Your task to perform on an android device: change notification settings in the gmail app Image 0: 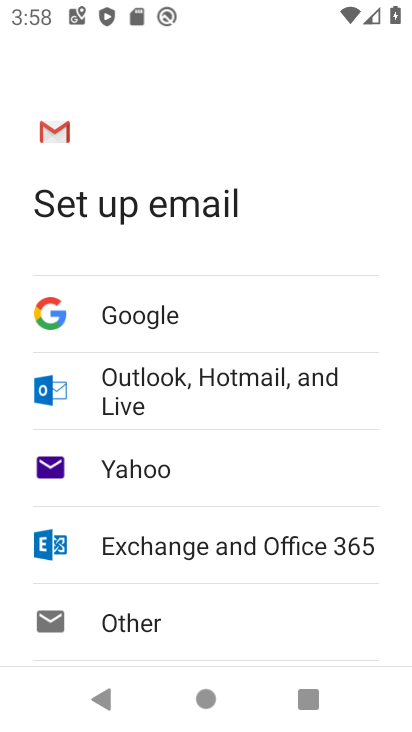
Step 0: press home button
Your task to perform on an android device: change notification settings in the gmail app Image 1: 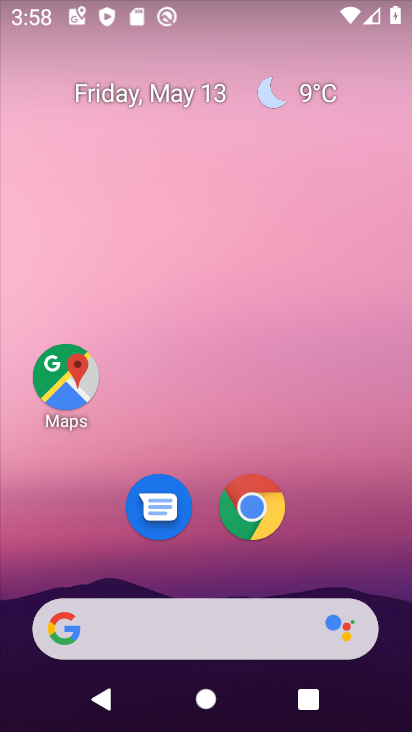
Step 1: drag from (337, 537) to (387, 73)
Your task to perform on an android device: change notification settings in the gmail app Image 2: 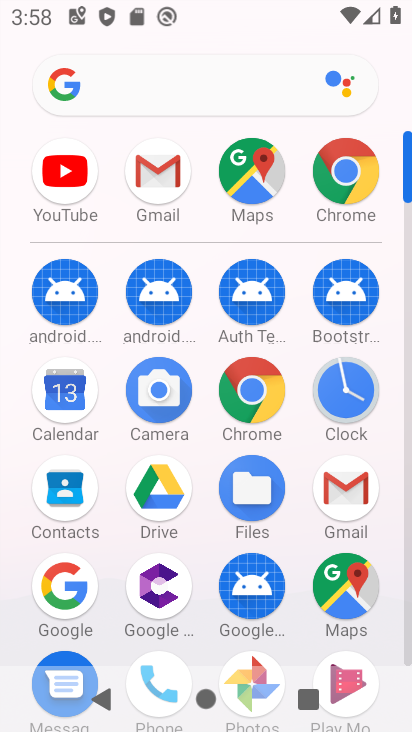
Step 2: click (160, 179)
Your task to perform on an android device: change notification settings in the gmail app Image 3: 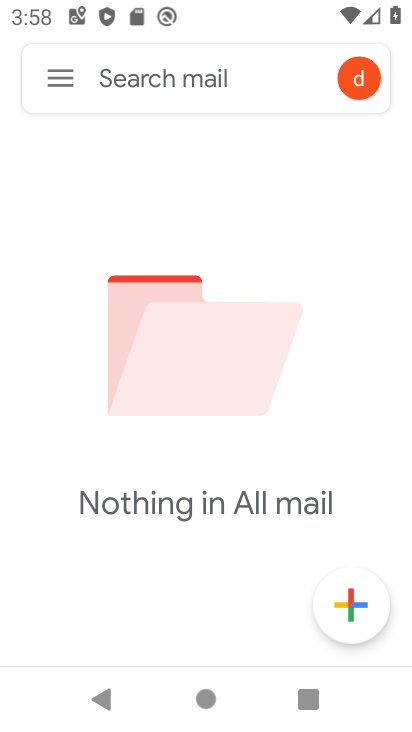
Step 3: click (56, 87)
Your task to perform on an android device: change notification settings in the gmail app Image 4: 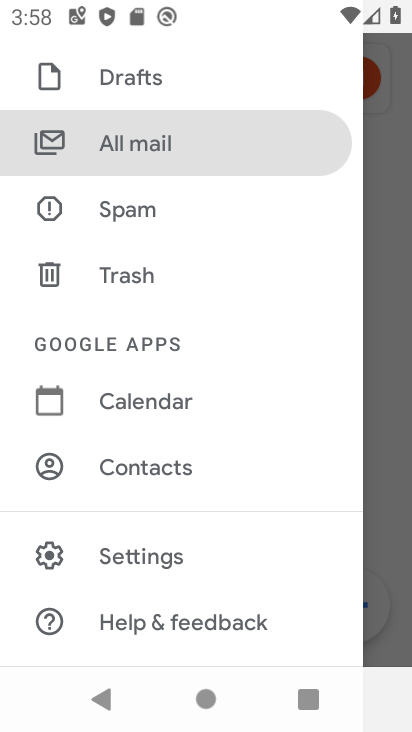
Step 4: click (179, 564)
Your task to perform on an android device: change notification settings in the gmail app Image 5: 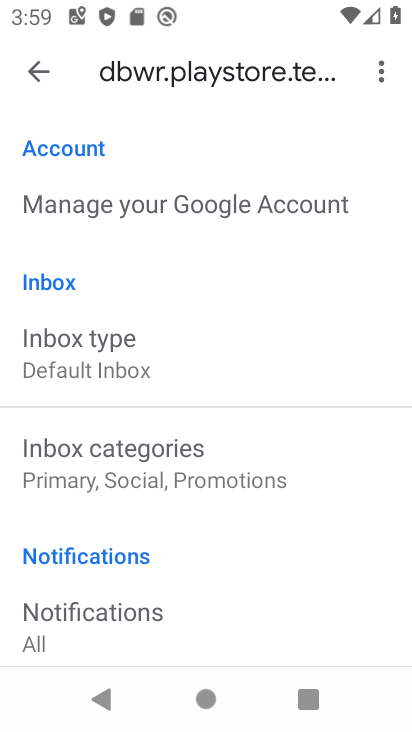
Step 5: click (77, 628)
Your task to perform on an android device: change notification settings in the gmail app Image 6: 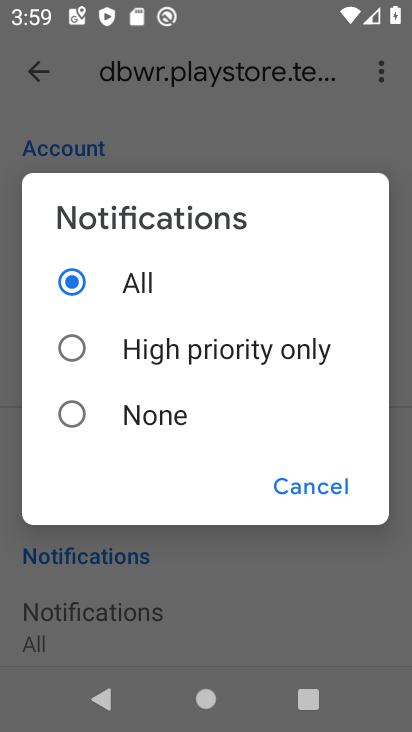
Step 6: click (65, 346)
Your task to perform on an android device: change notification settings in the gmail app Image 7: 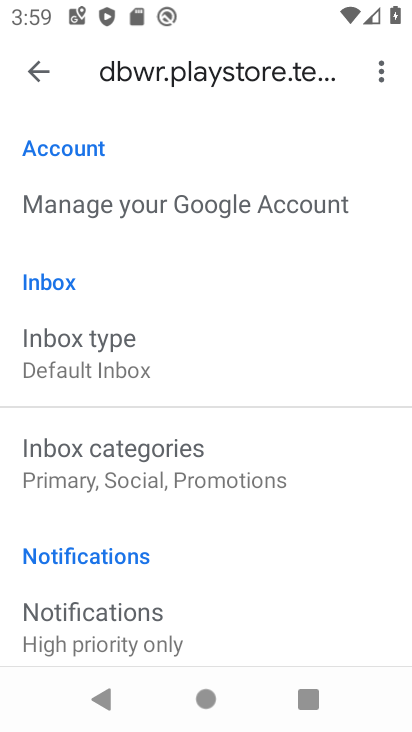
Step 7: task complete